Your task to perform on an android device: delete location history Image 0: 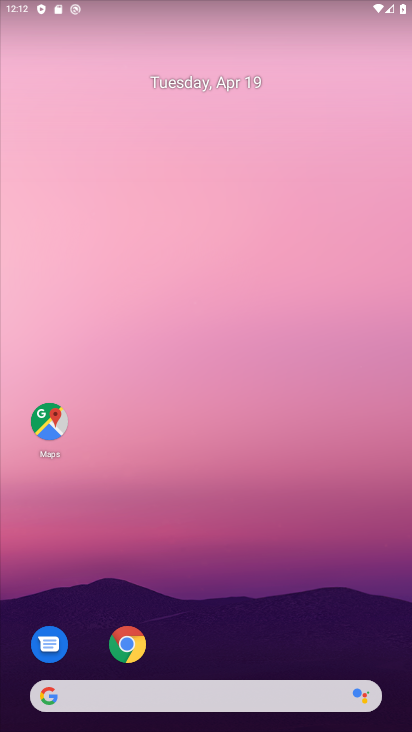
Step 0: click (121, 638)
Your task to perform on an android device: delete location history Image 1: 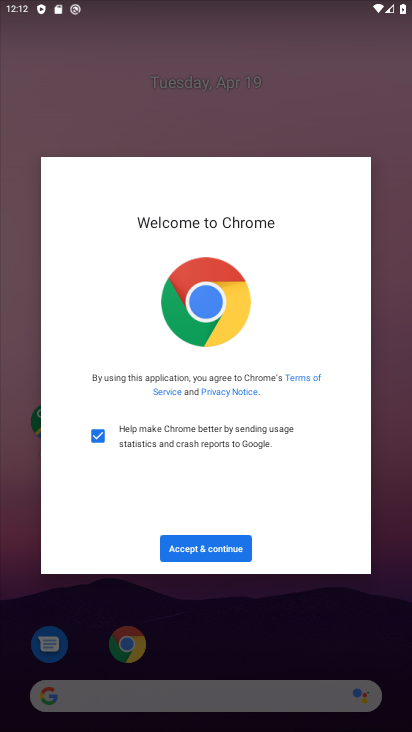
Step 1: click (206, 530)
Your task to perform on an android device: delete location history Image 2: 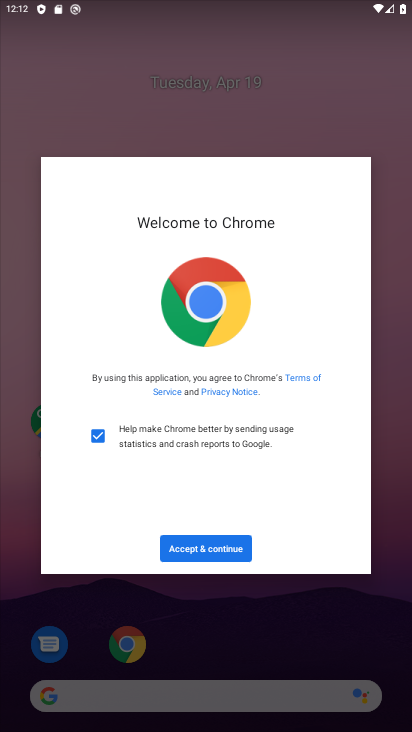
Step 2: click (197, 545)
Your task to perform on an android device: delete location history Image 3: 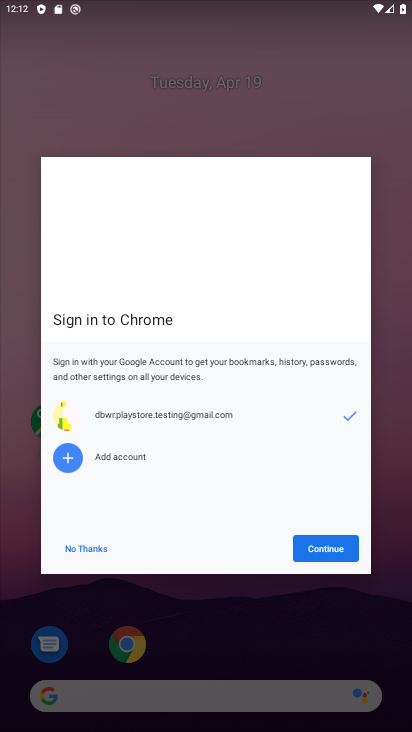
Step 3: click (342, 540)
Your task to perform on an android device: delete location history Image 4: 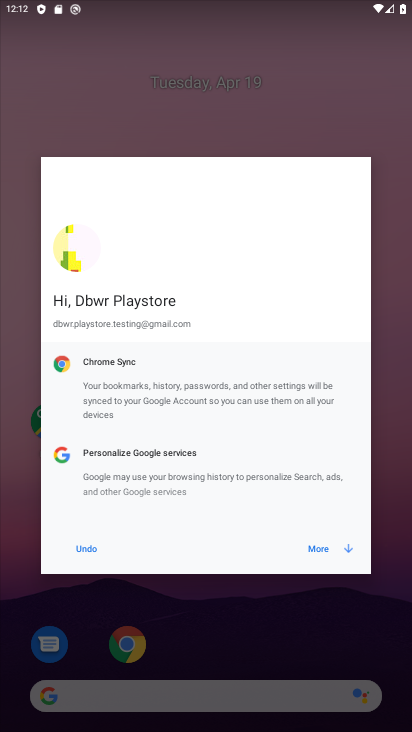
Step 4: click (331, 540)
Your task to perform on an android device: delete location history Image 5: 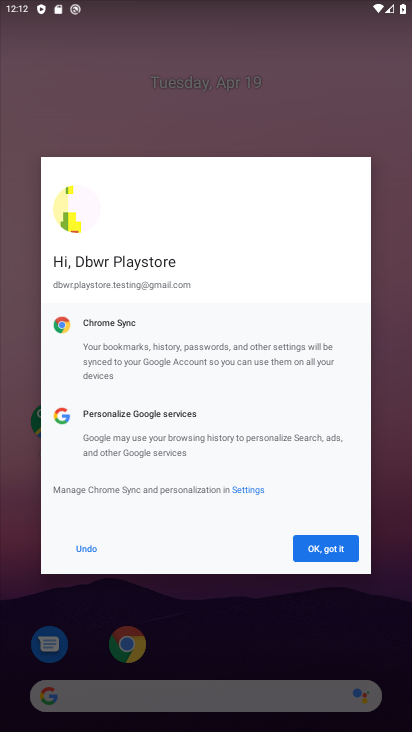
Step 5: click (331, 540)
Your task to perform on an android device: delete location history Image 6: 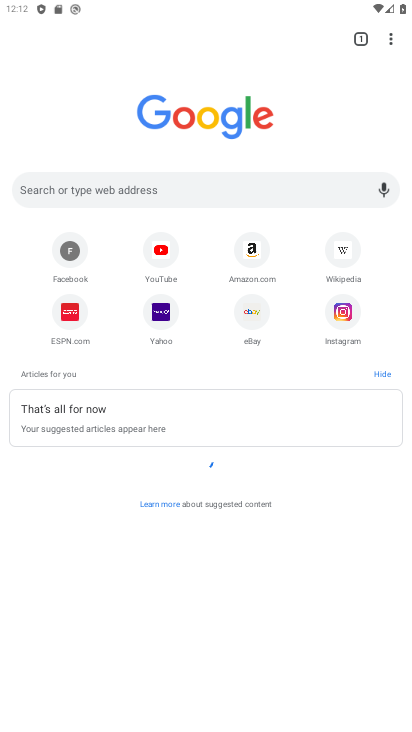
Step 6: click (392, 42)
Your task to perform on an android device: delete location history Image 7: 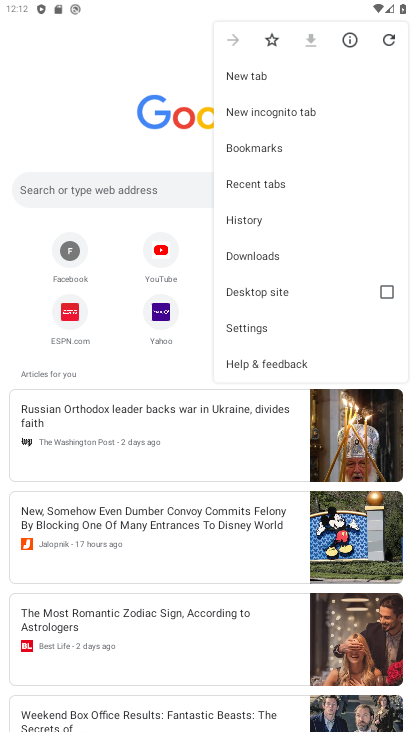
Step 7: click (254, 223)
Your task to perform on an android device: delete location history Image 8: 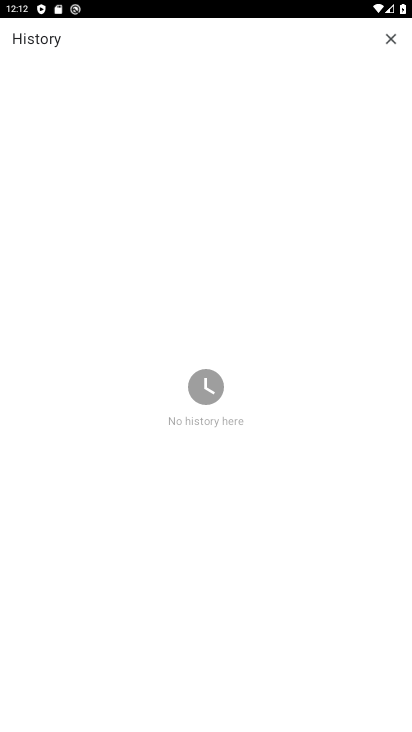
Step 8: task complete